Your task to perform on an android device: open a new tab in the chrome app Image 0: 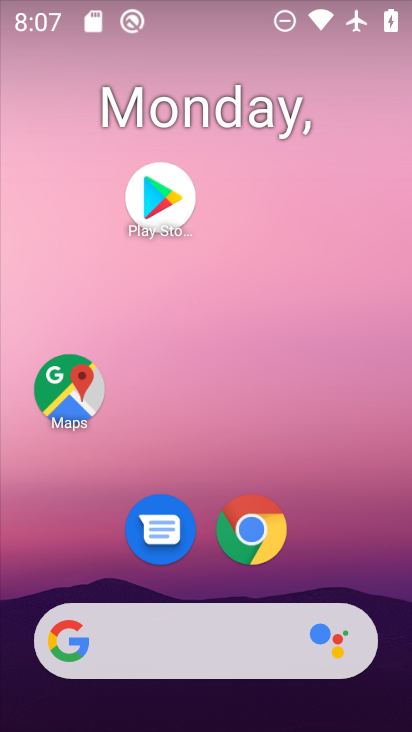
Step 0: click (257, 531)
Your task to perform on an android device: open a new tab in the chrome app Image 1: 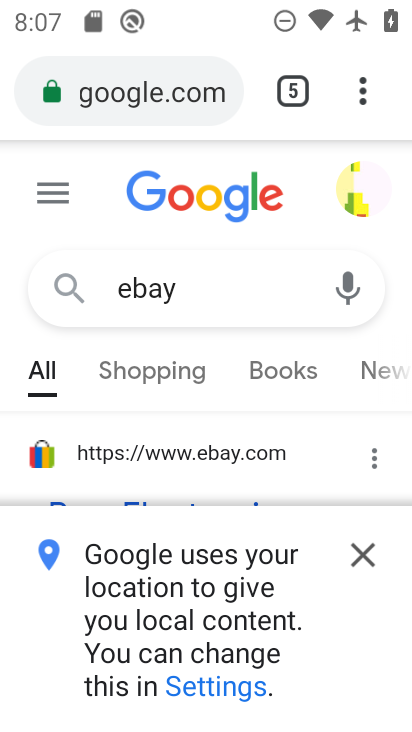
Step 1: click (364, 95)
Your task to perform on an android device: open a new tab in the chrome app Image 2: 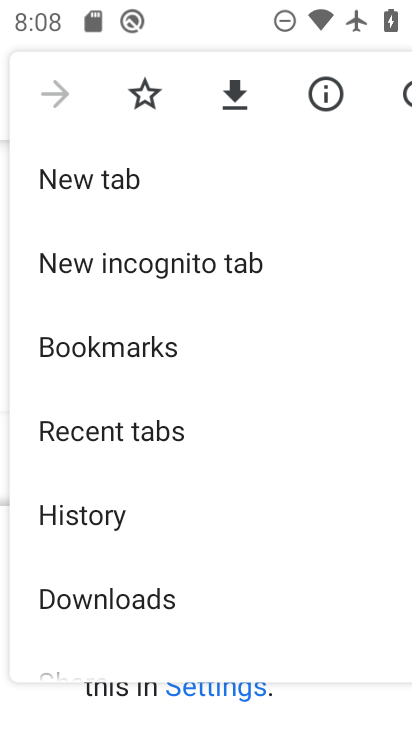
Step 2: click (92, 179)
Your task to perform on an android device: open a new tab in the chrome app Image 3: 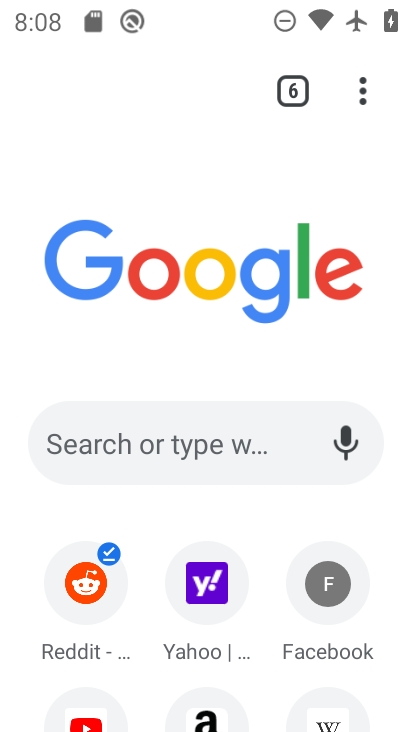
Step 3: task complete